Your task to perform on an android device: star an email in the gmail app Image 0: 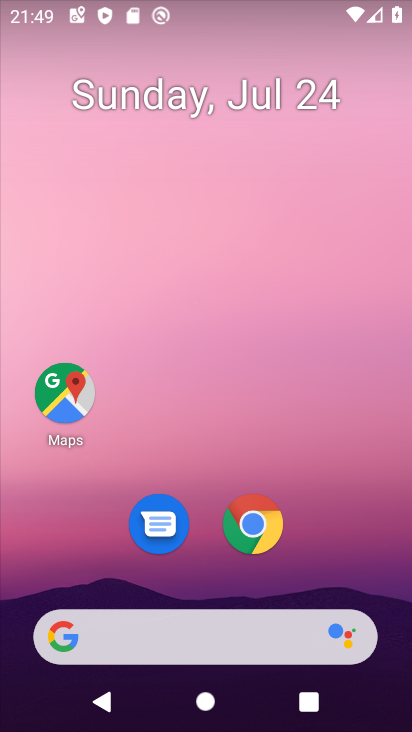
Step 0: drag from (216, 634) to (323, 99)
Your task to perform on an android device: star an email in the gmail app Image 1: 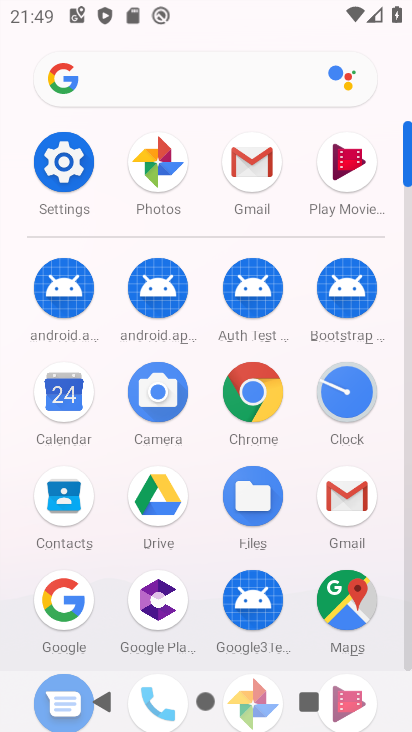
Step 1: click (253, 176)
Your task to perform on an android device: star an email in the gmail app Image 2: 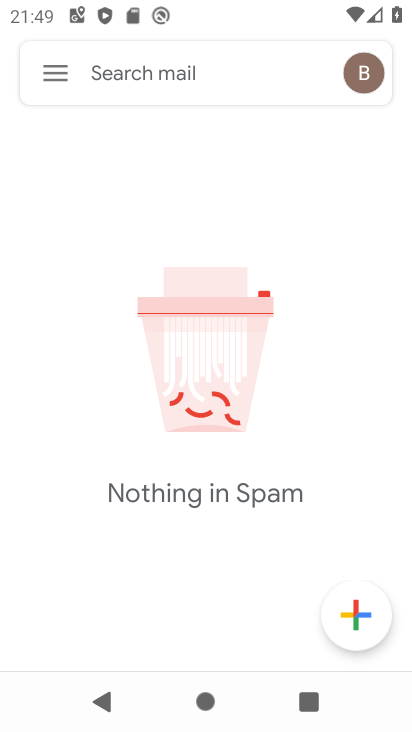
Step 2: click (63, 71)
Your task to perform on an android device: star an email in the gmail app Image 3: 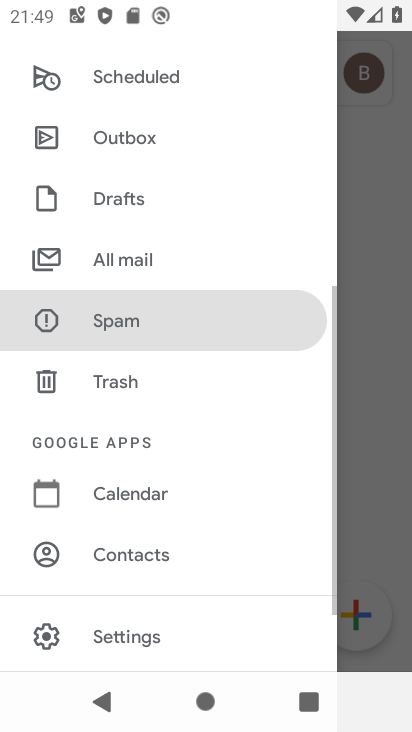
Step 3: click (147, 257)
Your task to perform on an android device: star an email in the gmail app Image 4: 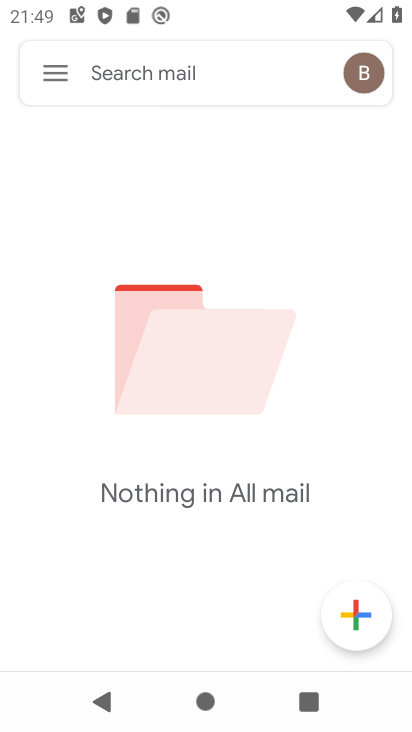
Step 4: task complete